Your task to perform on an android device: turn off priority inbox in the gmail app Image 0: 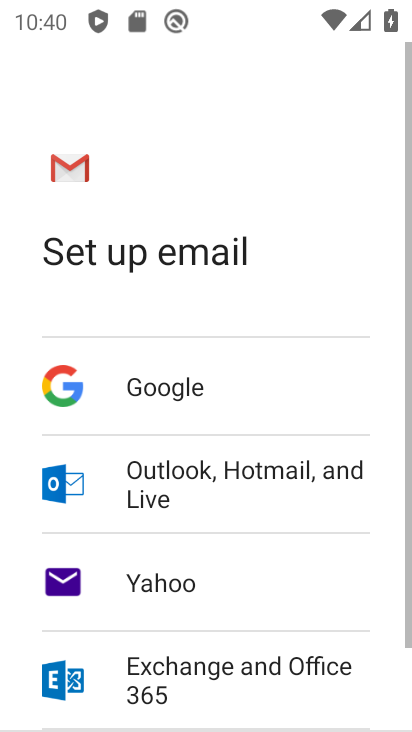
Step 0: press back button
Your task to perform on an android device: turn off priority inbox in the gmail app Image 1: 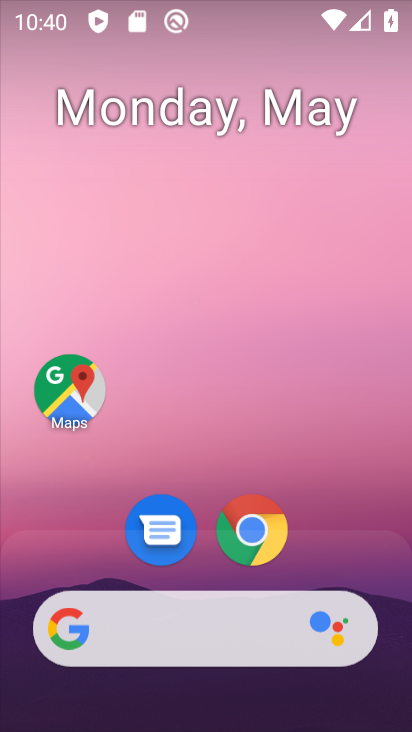
Step 1: drag from (329, 561) to (299, 21)
Your task to perform on an android device: turn off priority inbox in the gmail app Image 2: 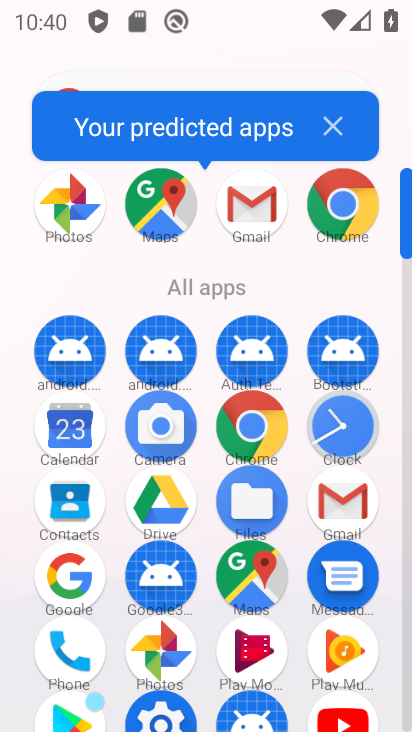
Step 2: click (254, 207)
Your task to perform on an android device: turn off priority inbox in the gmail app Image 3: 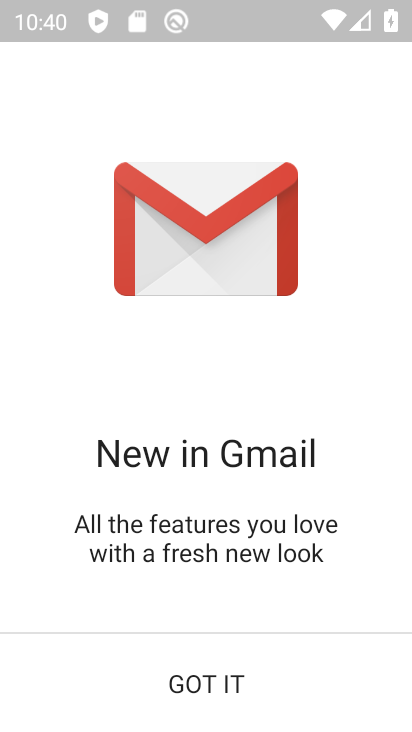
Step 3: click (208, 678)
Your task to perform on an android device: turn off priority inbox in the gmail app Image 4: 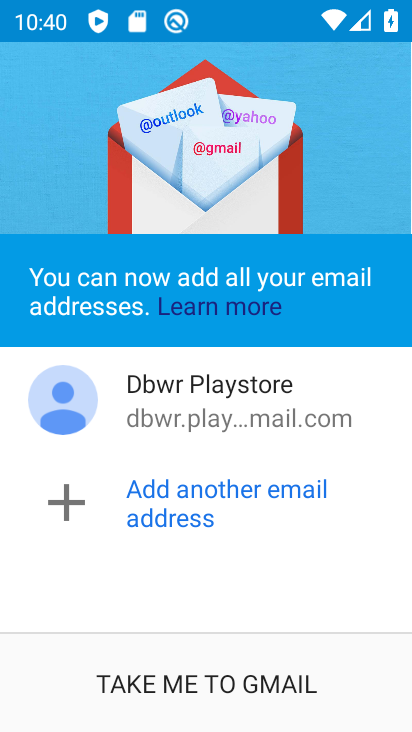
Step 4: click (208, 678)
Your task to perform on an android device: turn off priority inbox in the gmail app Image 5: 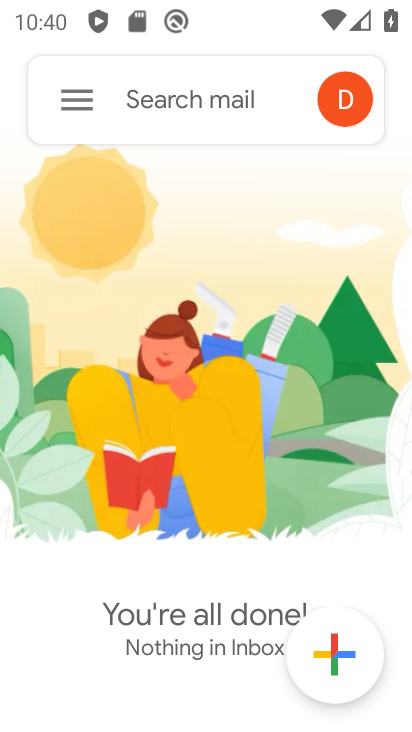
Step 5: click (77, 100)
Your task to perform on an android device: turn off priority inbox in the gmail app Image 6: 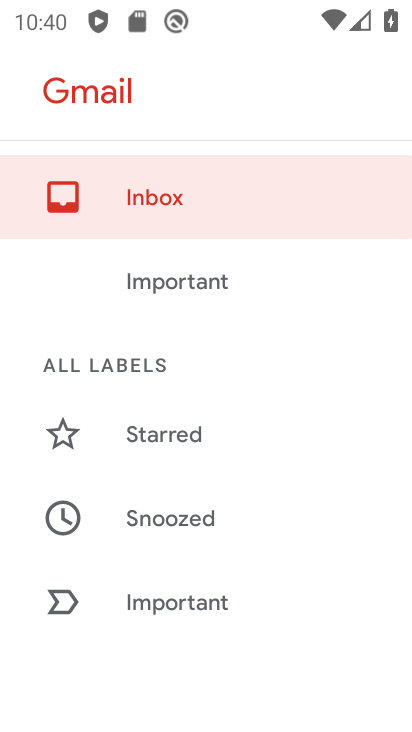
Step 6: drag from (166, 556) to (224, 418)
Your task to perform on an android device: turn off priority inbox in the gmail app Image 7: 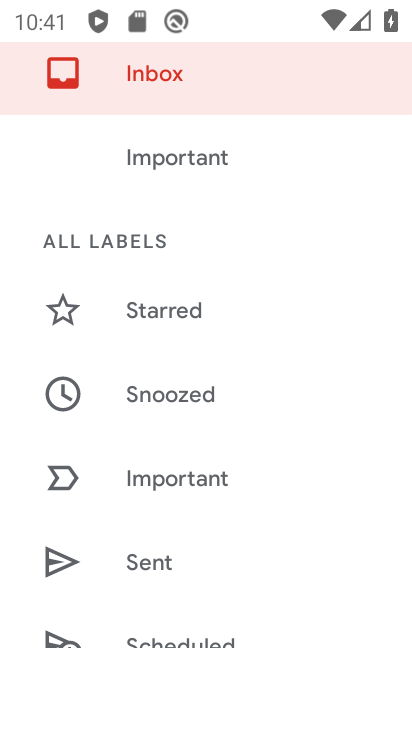
Step 7: drag from (149, 528) to (228, 411)
Your task to perform on an android device: turn off priority inbox in the gmail app Image 8: 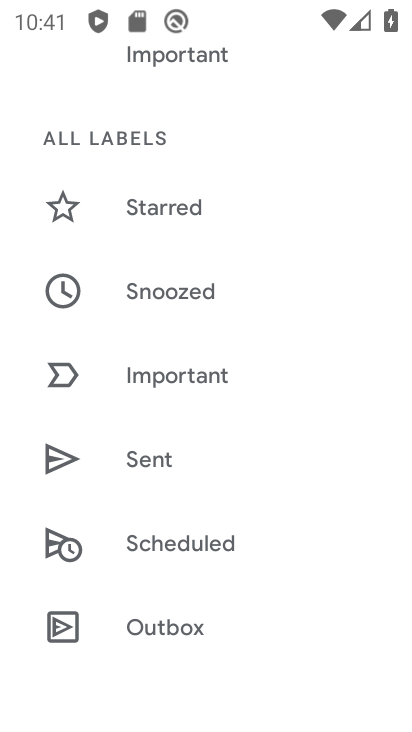
Step 8: drag from (172, 509) to (209, 338)
Your task to perform on an android device: turn off priority inbox in the gmail app Image 9: 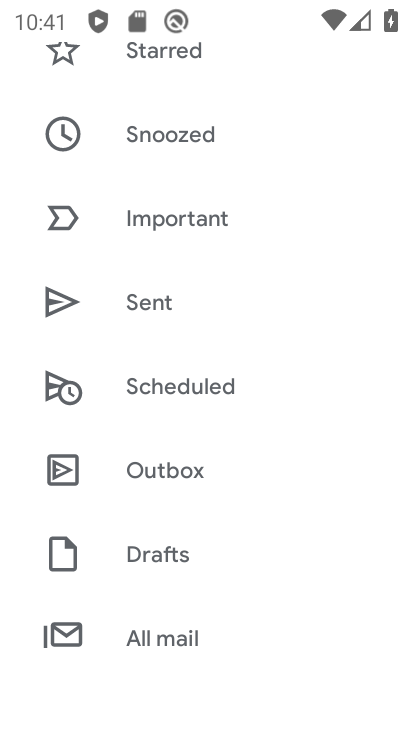
Step 9: drag from (146, 588) to (205, 433)
Your task to perform on an android device: turn off priority inbox in the gmail app Image 10: 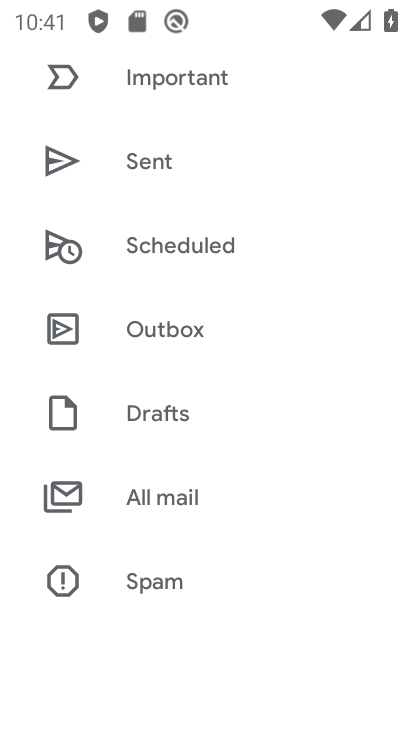
Step 10: drag from (153, 550) to (215, 416)
Your task to perform on an android device: turn off priority inbox in the gmail app Image 11: 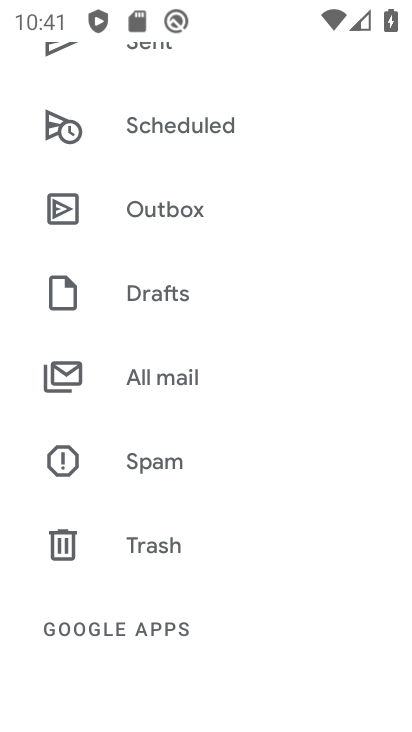
Step 11: drag from (155, 515) to (189, 296)
Your task to perform on an android device: turn off priority inbox in the gmail app Image 12: 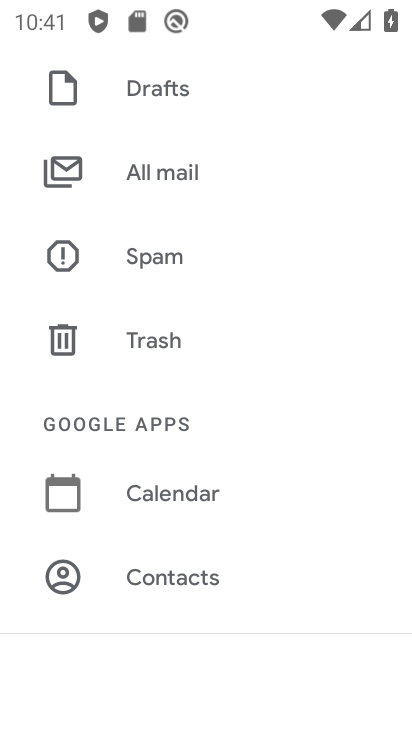
Step 12: drag from (149, 536) to (251, 375)
Your task to perform on an android device: turn off priority inbox in the gmail app Image 13: 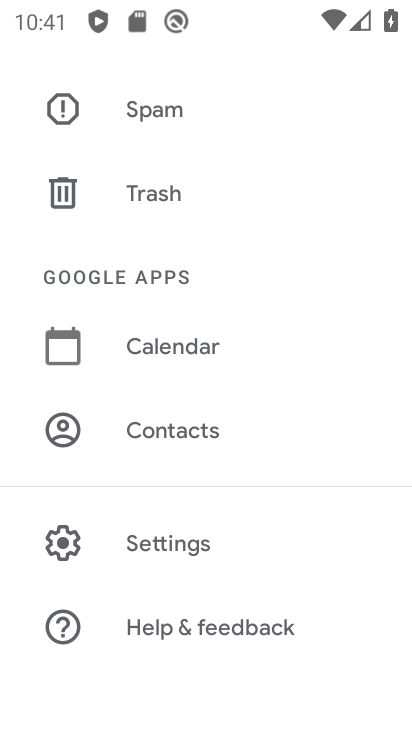
Step 13: click (160, 540)
Your task to perform on an android device: turn off priority inbox in the gmail app Image 14: 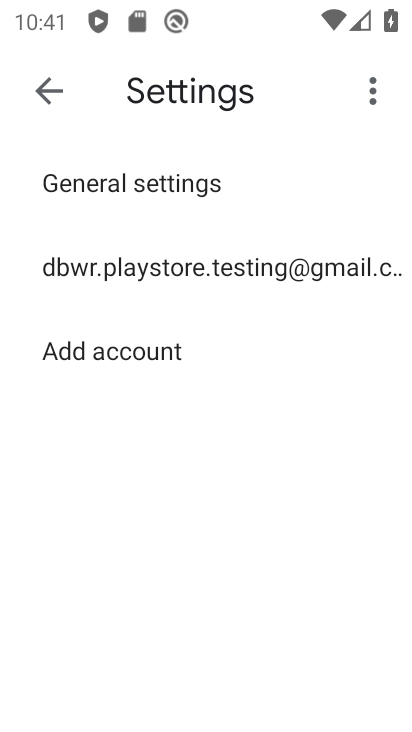
Step 14: click (240, 269)
Your task to perform on an android device: turn off priority inbox in the gmail app Image 15: 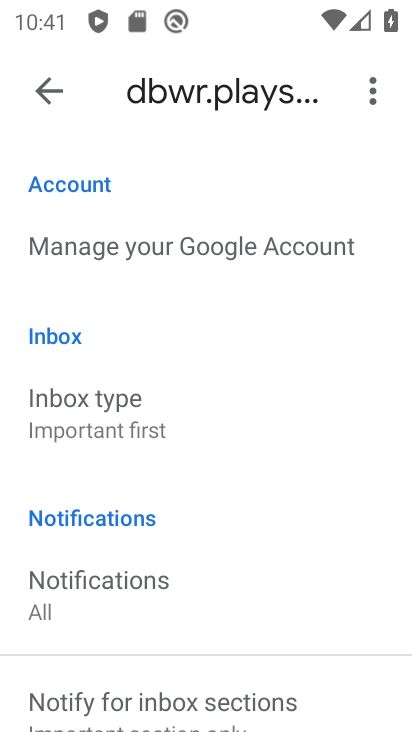
Step 15: click (134, 434)
Your task to perform on an android device: turn off priority inbox in the gmail app Image 16: 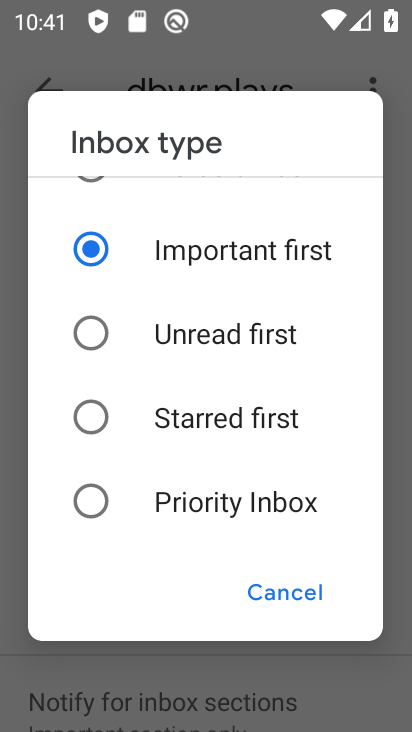
Step 16: click (90, 254)
Your task to perform on an android device: turn off priority inbox in the gmail app Image 17: 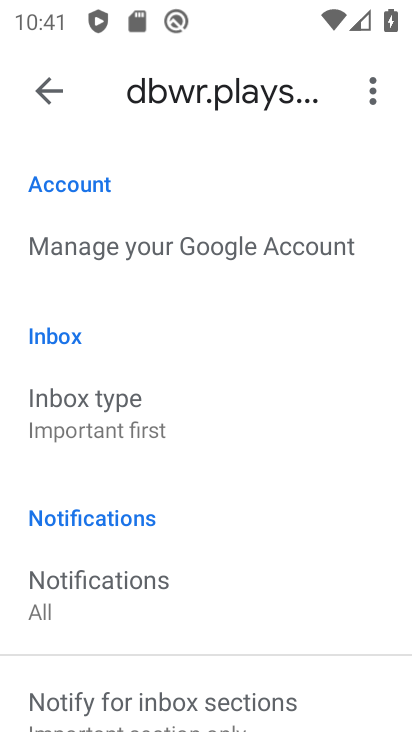
Step 17: task complete